Your task to perform on an android device: Go to notification settings Image 0: 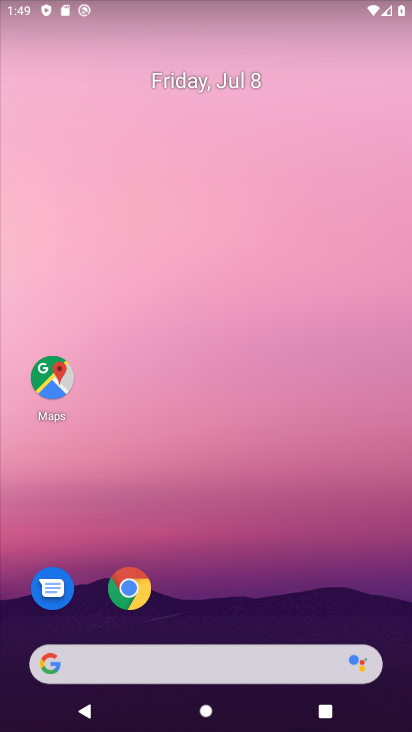
Step 0: drag from (153, 645) to (315, 7)
Your task to perform on an android device: Go to notification settings Image 1: 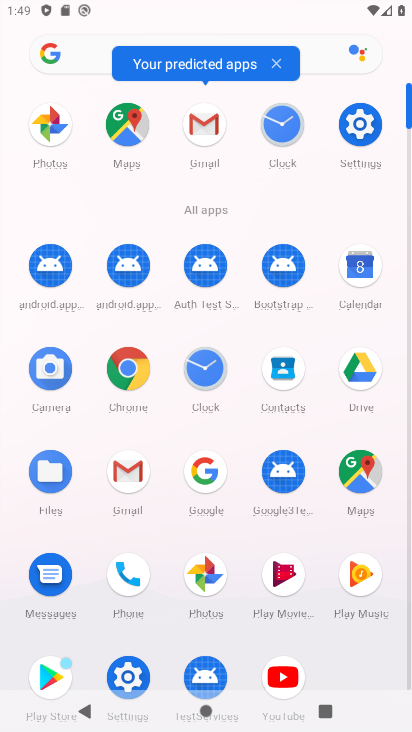
Step 1: click (114, 667)
Your task to perform on an android device: Go to notification settings Image 2: 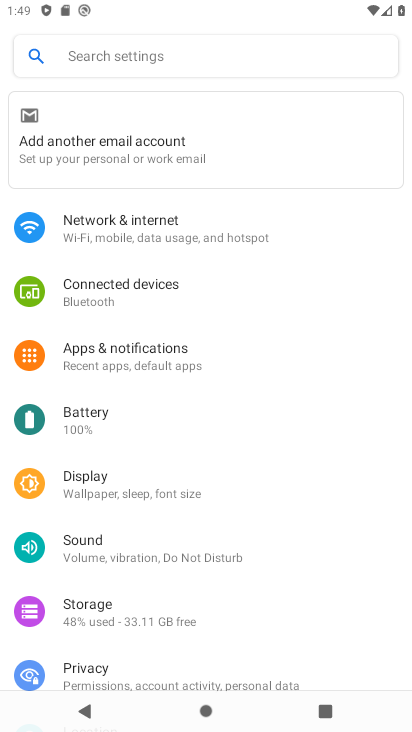
Step 2: click (188, 368)
Your task to perform on an android device: Go to notification settings Image 3: 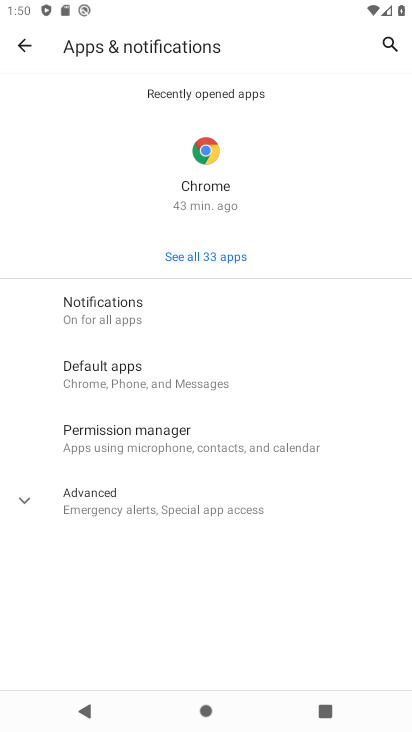
Step 3: task complete